Your task to perform on an android device: Open Reddit.com Image 0: 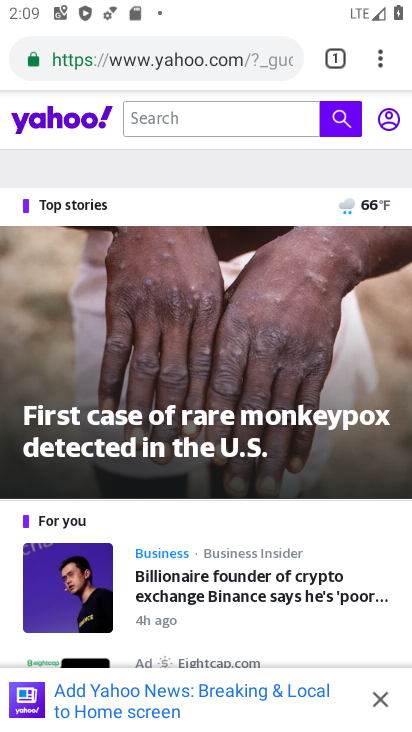
Step 0: press home button
Your task to perform on an android device: Open Reddit.com Image 1: 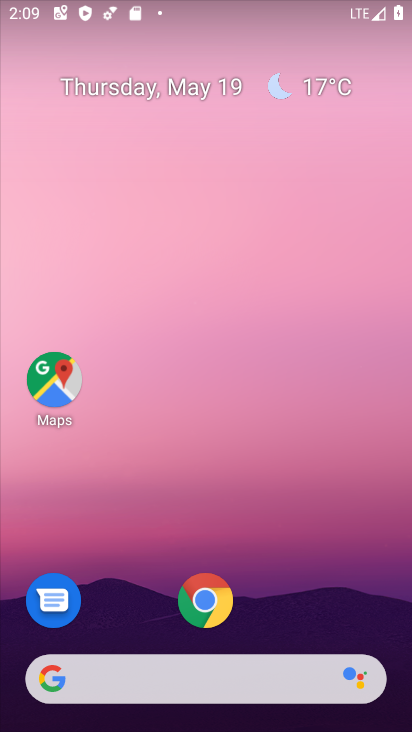
Step 1: click (211, 604)
Your task to perform on an android device: Open Reddit.com Image 2: 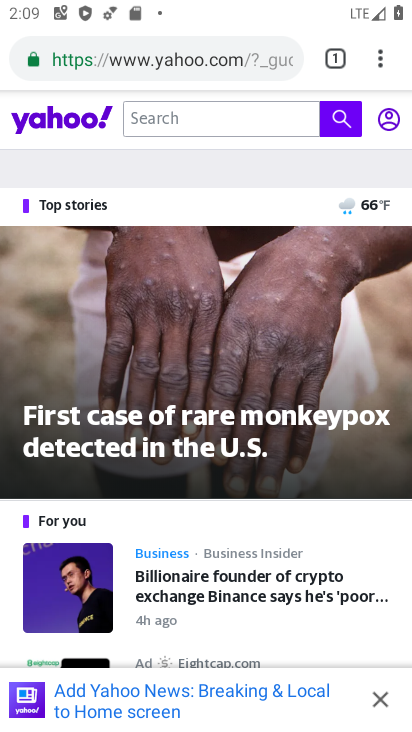
Step 2: click (382, 61)
Your task to perform on an android device: Open Reddit.com Image 3: 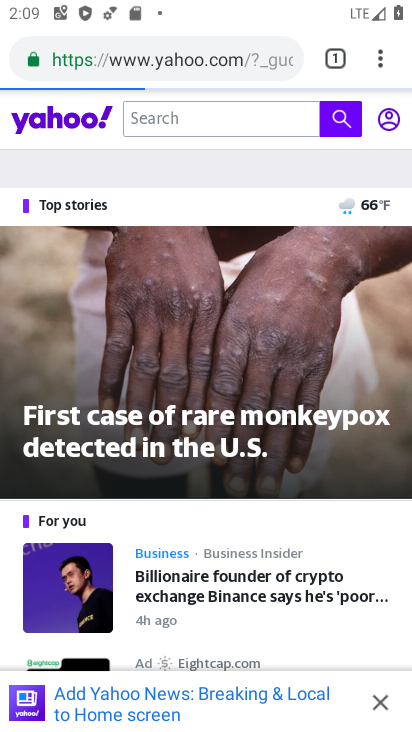
Step 3: click (382, 60)
Your task to perform on an android device: Open Reddit.com Image 4: 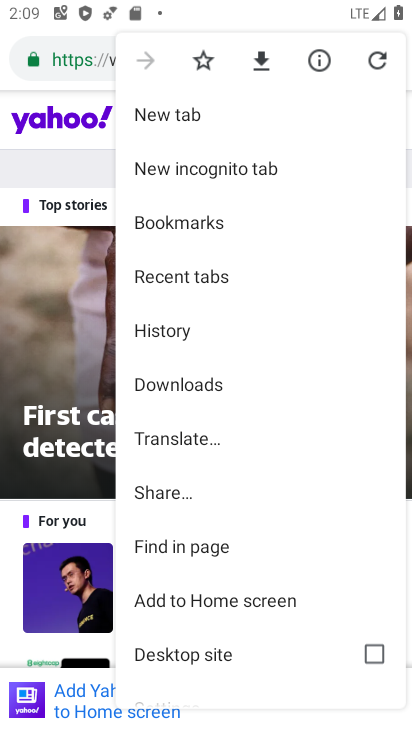
Step 4: drag from (241, 543) to (222, 316)
Your task to perform on an android device: Open Reddit.com Image 5: 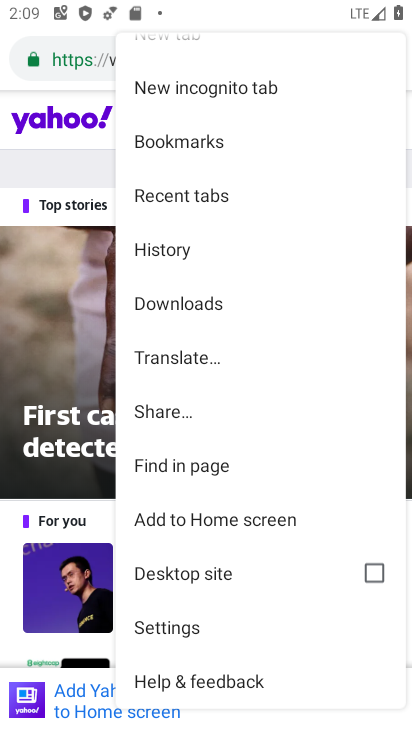
Step 5: click (207, 627)
Your task to perform on an android device: Open Reddit.com Image 6: 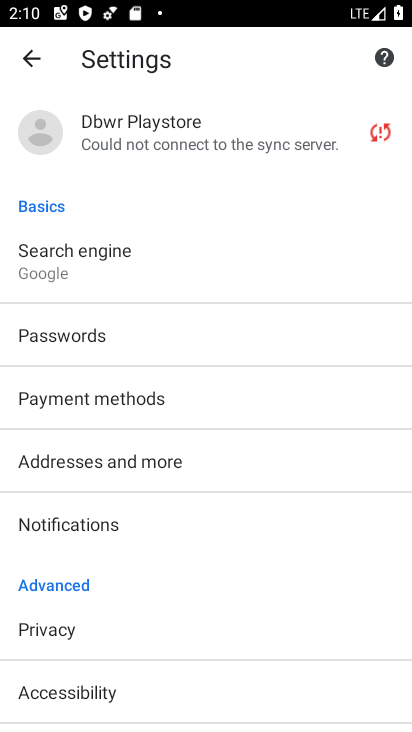
Step 6: click (45, 62)
Your task to perform on an android device: Open Reddit.com Image 7: 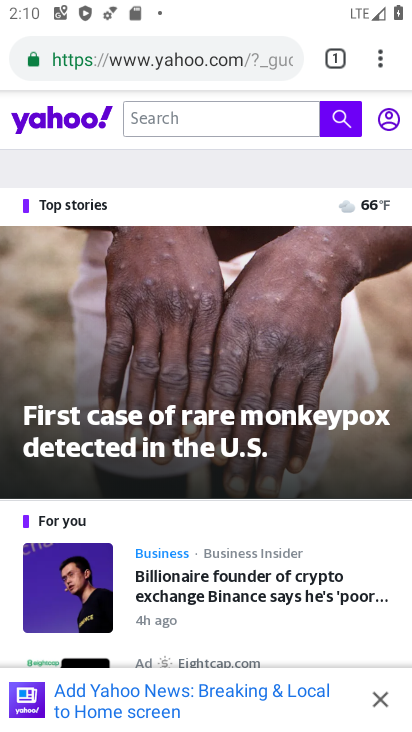
Step 7: click (217, 67)
Your task to perform on an android device: Open Reddit.com Image 8: 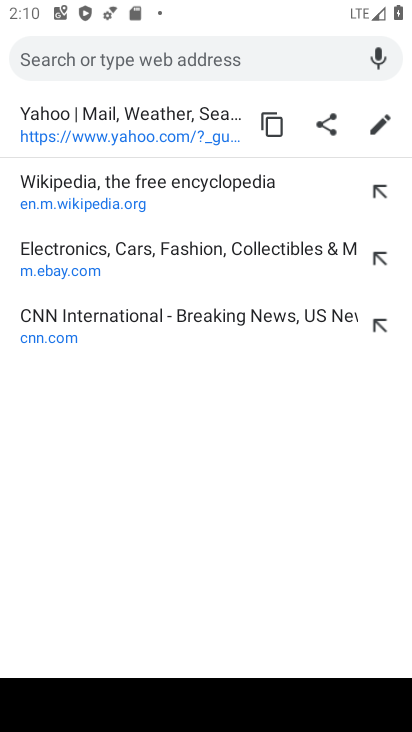
Step 8: type "reddit.com"
Your task to perform on an android device: Open Reddit.com Image 9: 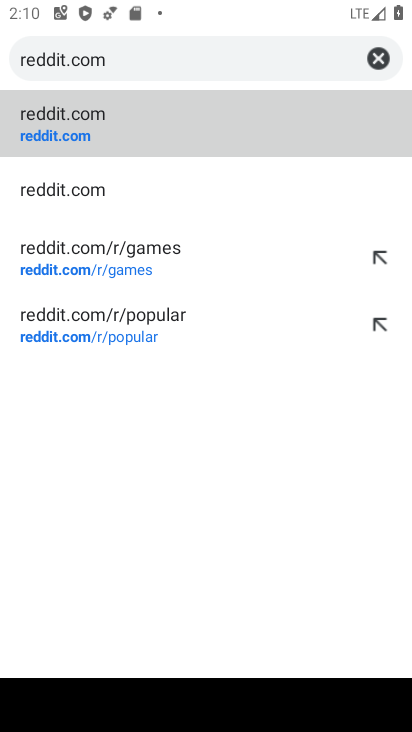
Step 9: click (87, 112)
Your task to perform on an android device: Open Reddit.com Image 10: 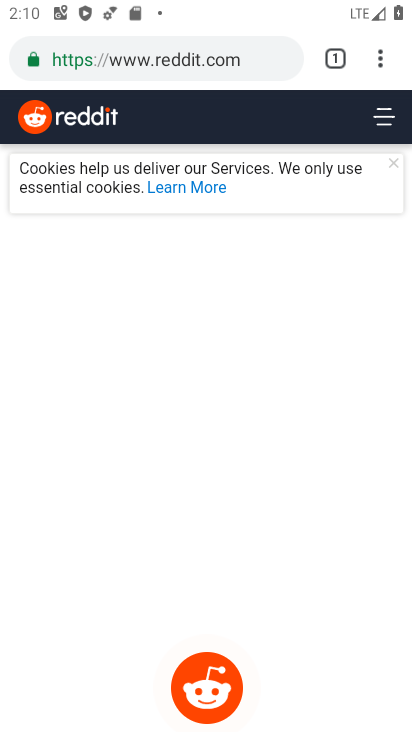
Step 10: task complete